Your task to perform on an android device: change notification settings in the gmail app Image 0: 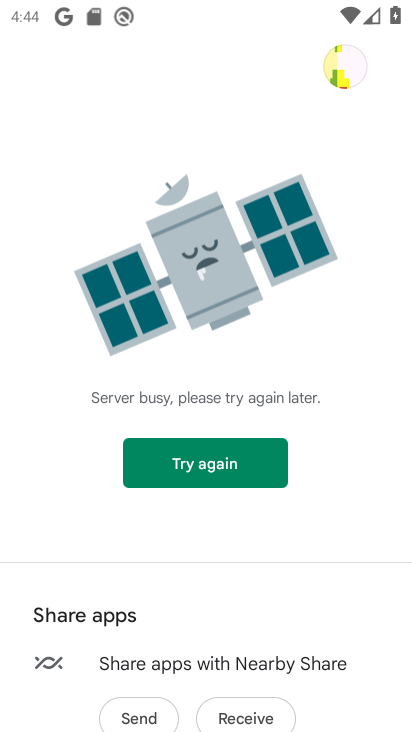
Step 0: press home button
Your task to perform on an android device: change notification settings in the gmail app Image 1: 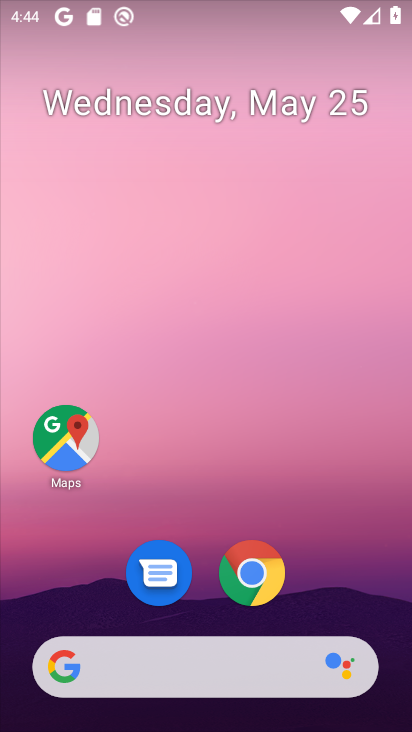
Step 1: drag from (225, 706) to (224, 239)
Your task to perform on an android device: change notification settings in the gmail app Image 2: 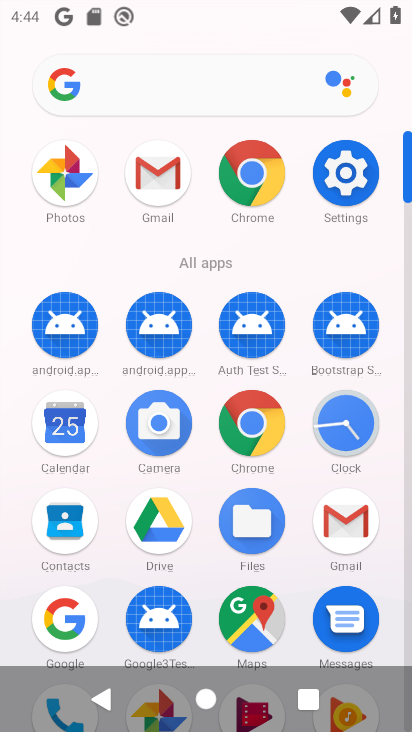
Step 2: click (352, 516)
Your task to perform on an android device: change notification settings in the gmail app Image 3: 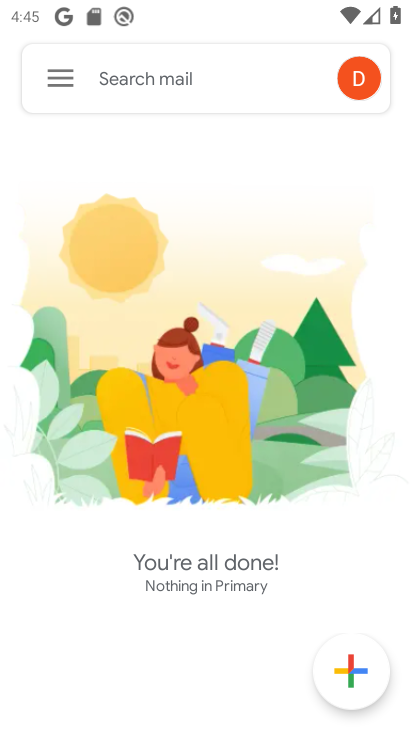
Step 3: click (61, 77)
Your task to perform on an android device: change notification settings in the gmail app Image 4: 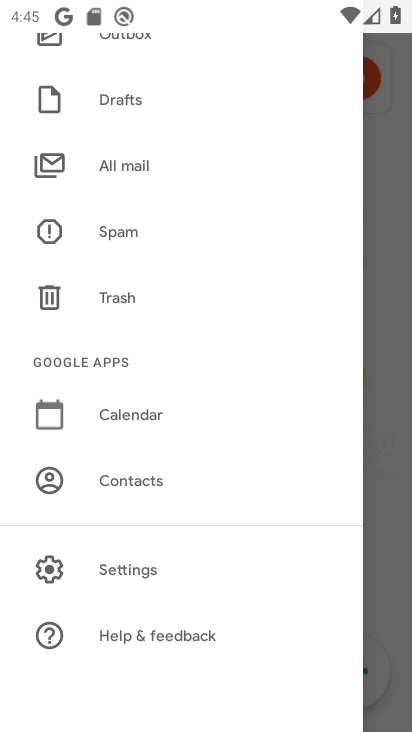
Step 4: click (123, 574)
Your task to perform on an android device: change notification settings in the gmail app Image 5: 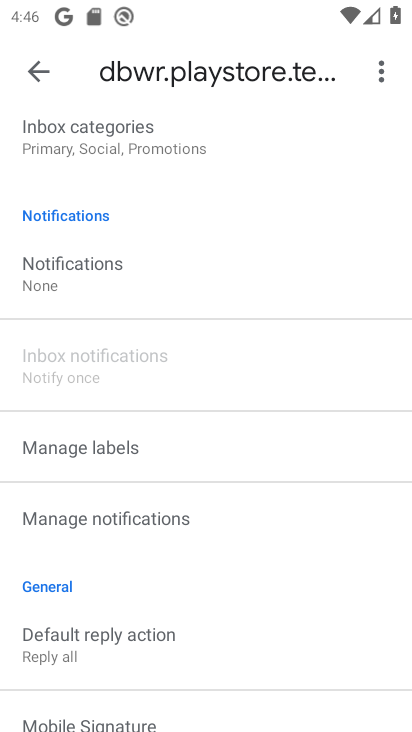
Step 5: press home button
Your task to perform on an android device: change notification settings in the gmail app Image 6: 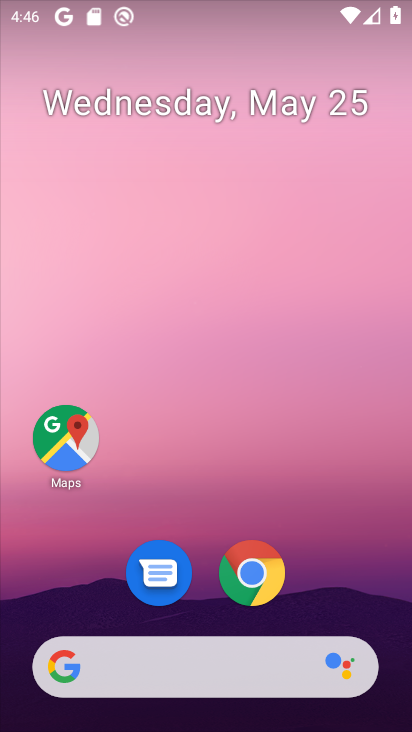
Step 6: drag from (235, 716) to (240, 65)
Your task to perform on an android device: change notification settings in the gmail app Image 7: 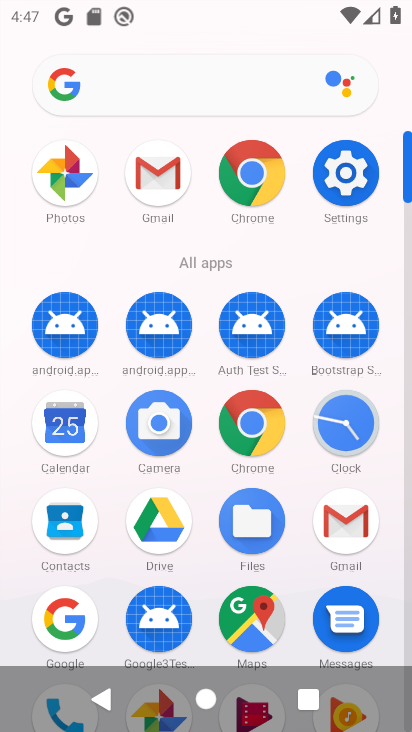
Step 7: click (345, 524)
Your task to perform on an android device: change notification settings in the gmail app Image 8: 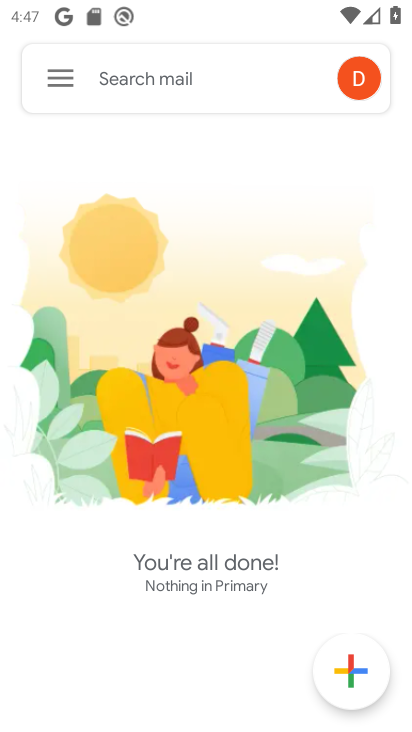
Step 8: click (56, 74)
Your task to perform on an android device: change notification settings in the gmail app Image 9: 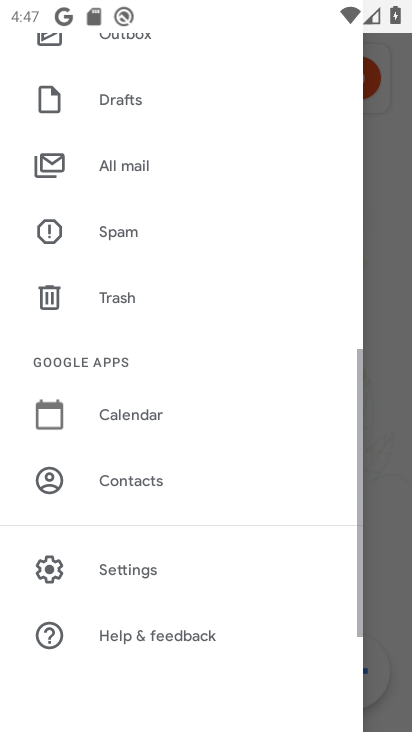
Step 9: click (142, 565)
Your task to perform on an android device: change notification settings in the gmail app Image 10: 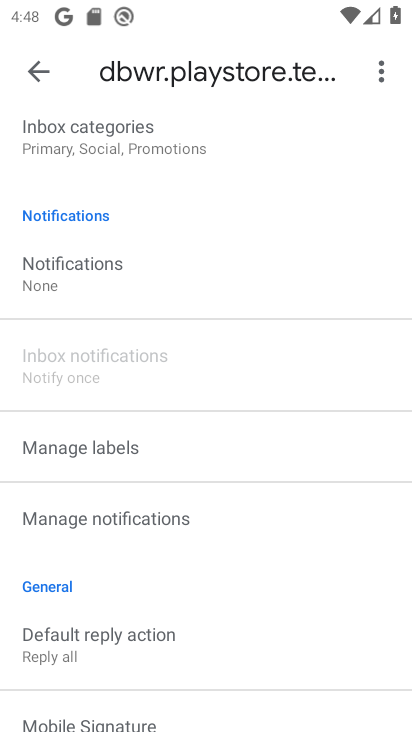
Step 10: click (51, 265)
Your task to perform on an android device: change notification settings in the gmail app Image 11: 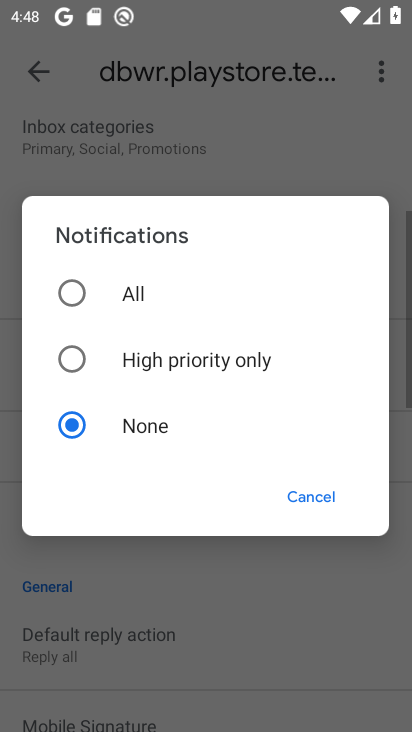
Step 11: click (67, 284)
Your task to perform on an android device: change notification settings in the gmail app Image 12: 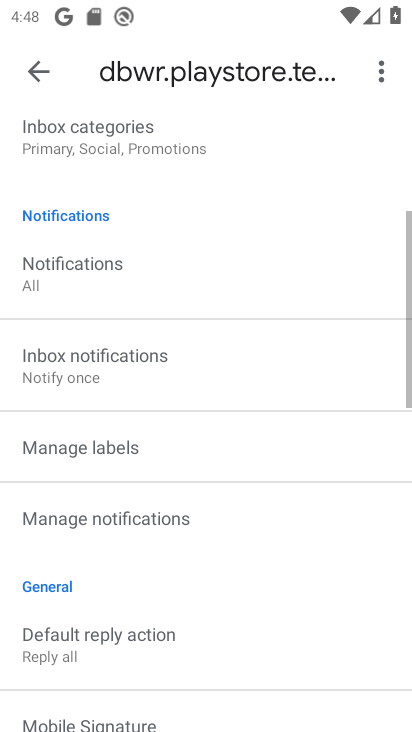
Step 12: task complete